Your task to perform on an android device: What's the latest video from GameSpot Reviews? Image 0: 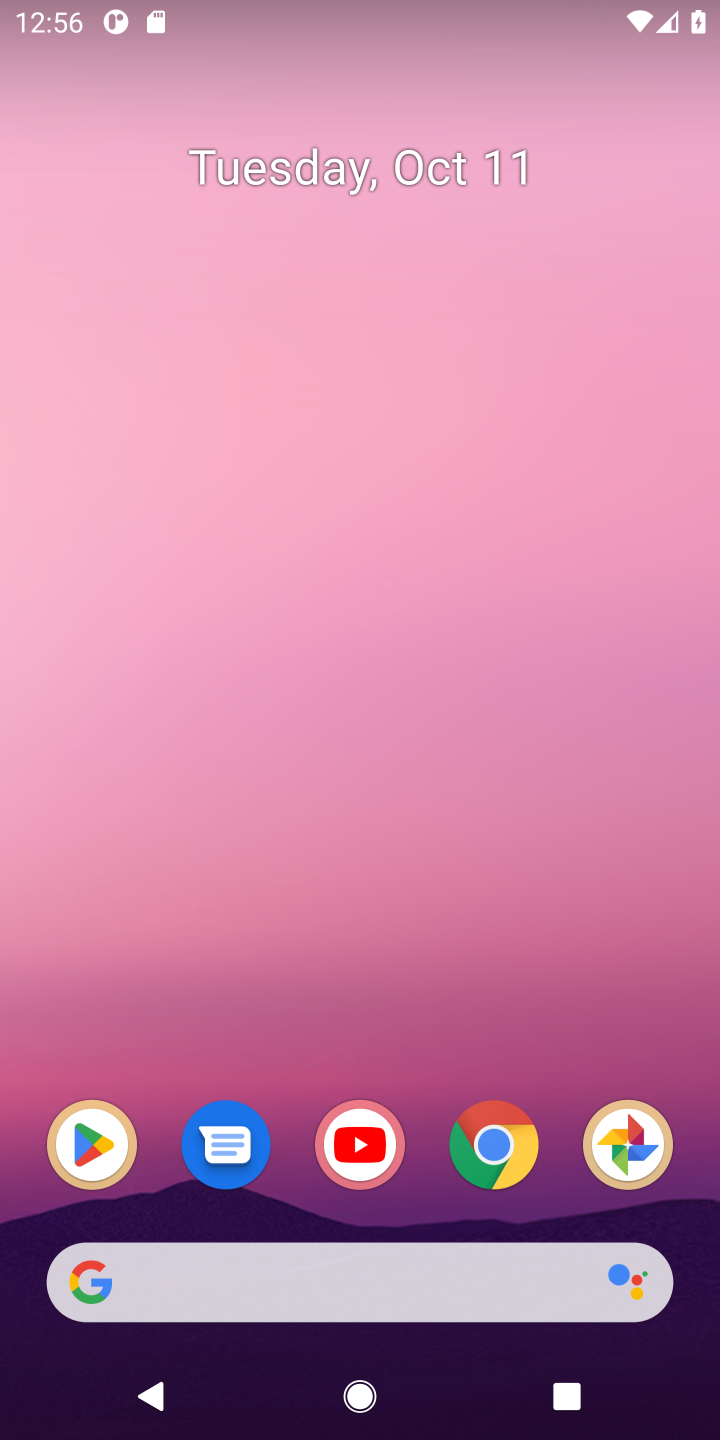
Step 0: press home button
Your task to perform on an android device: What's the latest video from GameSpot Reviews? Image 1: 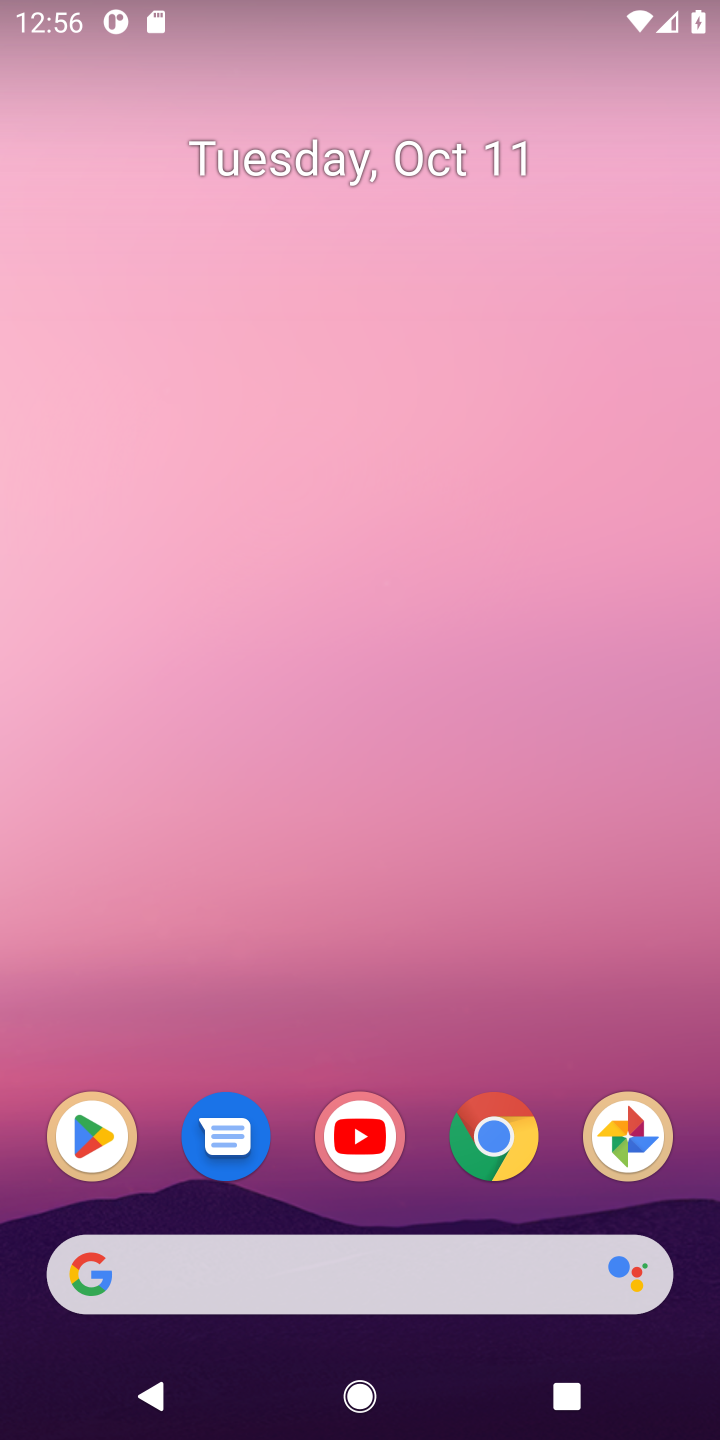
Step 1: press home button
Your task to perform on an android device: What's the latest video from GameSpot Reviews? Image 2: 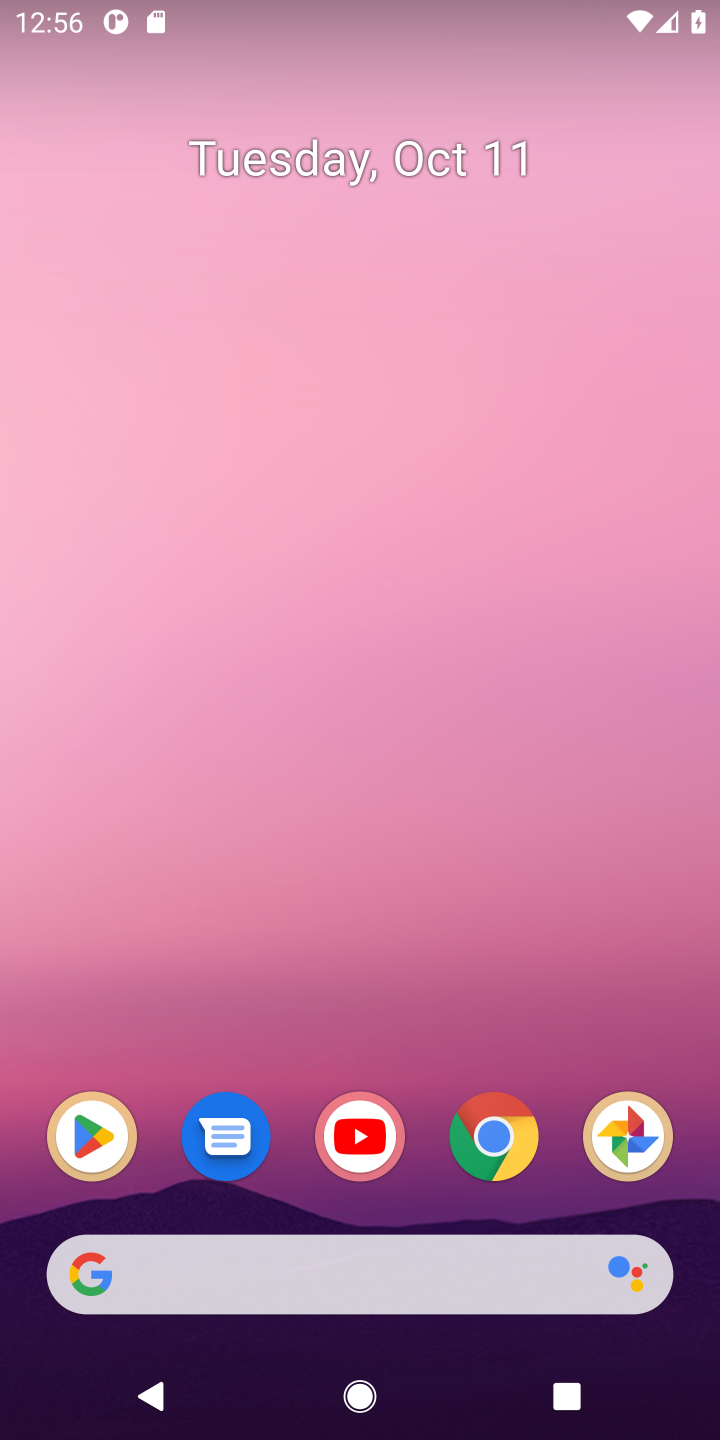
Step 2: click (307, 1270)
Your task to perform on an android device: What's the latest video from GameSpot Reviews? Image 3: 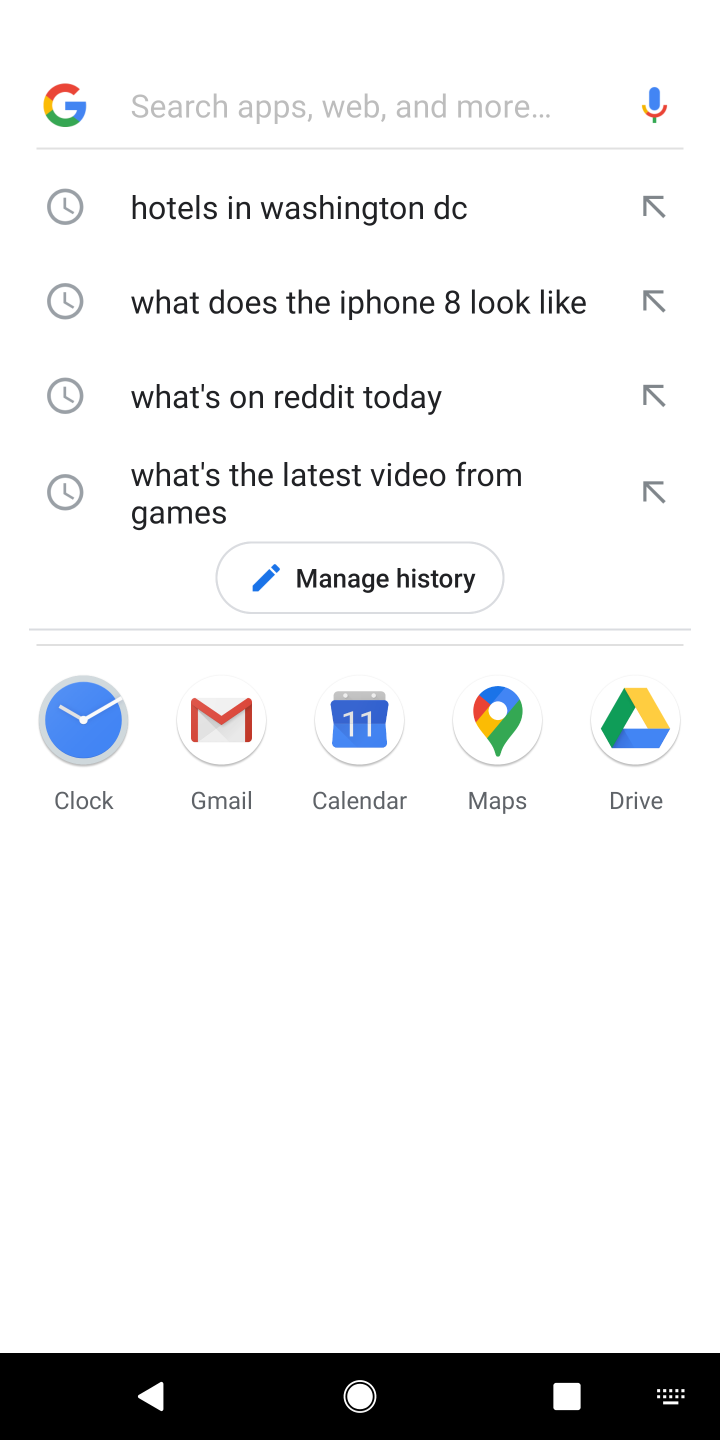
Step 3: type "What's the latest video from GameSpot Reviews"
Your task to perform on an android device: What's the latest video from GameSpot Reviews? Image 4: 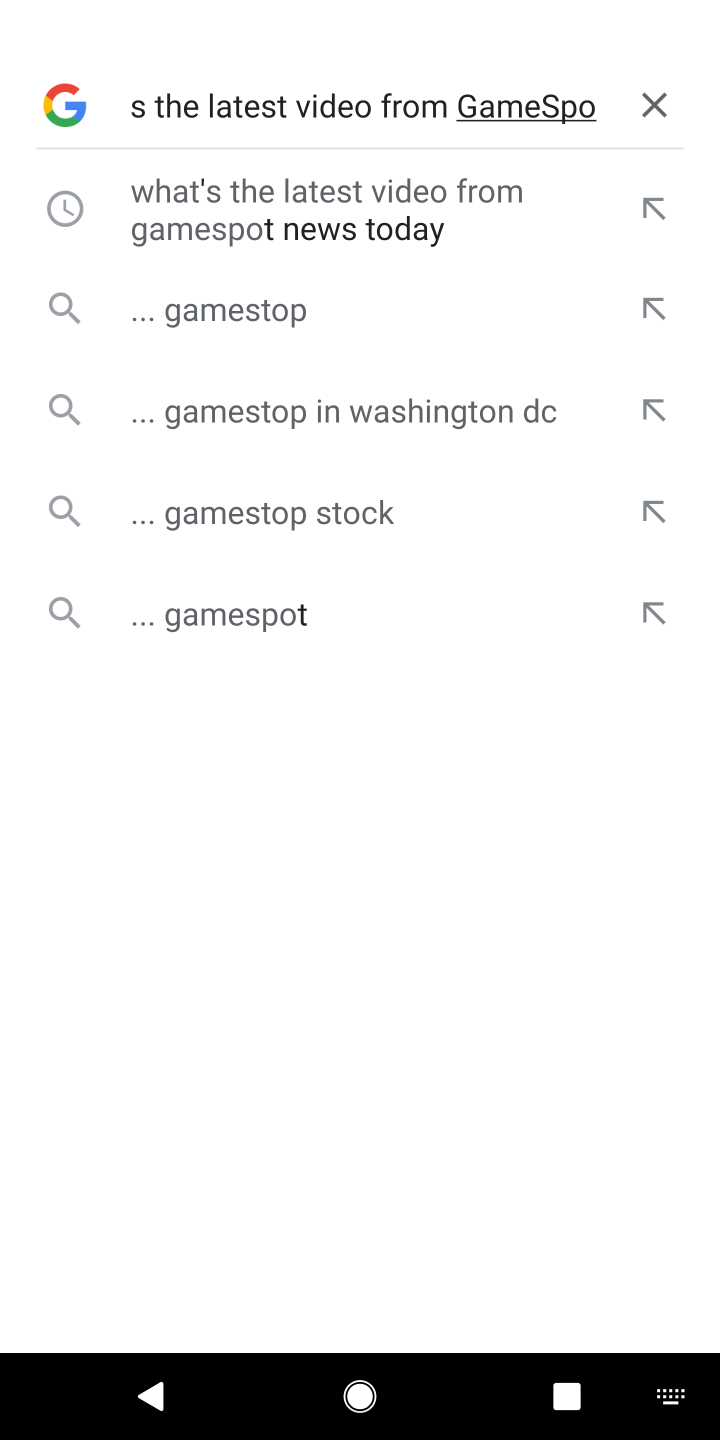
Step 4: press enter
Your task to perform on an android device: What's the latest video from GameSpot Reviews? Image 5: 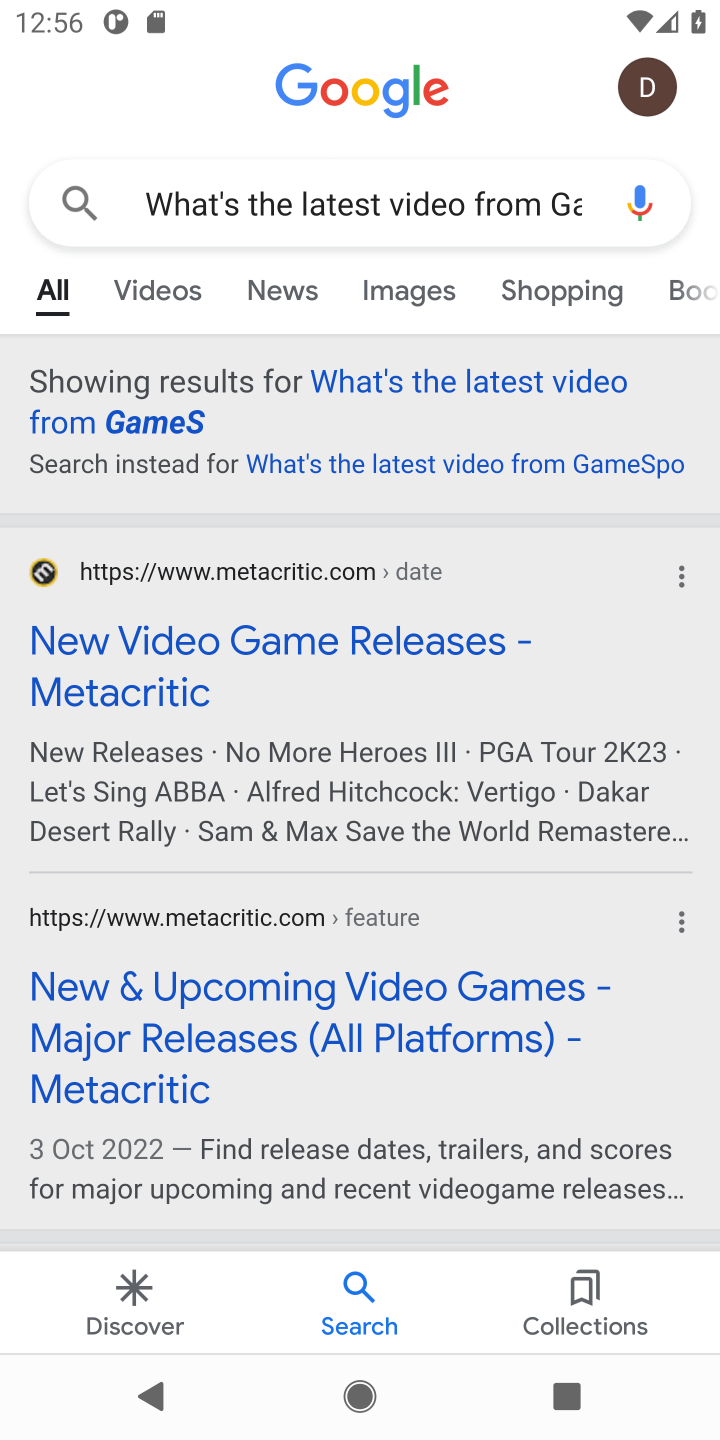
Step 5: drag from (424, 1065) to (458, 631)
Your task to perform on an android device: What's the latest video from GameSpot Reviews? Image 6: 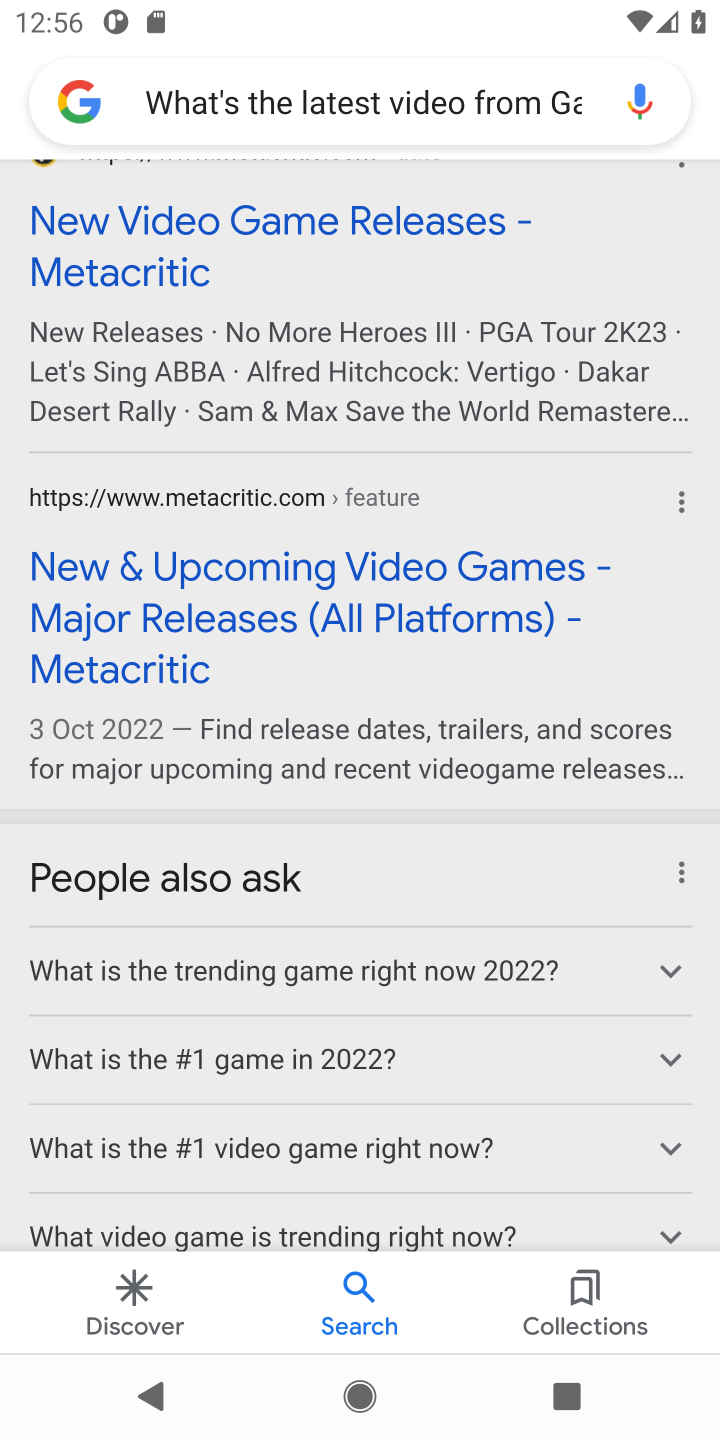
Step 6: drag from (433, 968) to (483, 494)
Your task to perform on an android device: What's the latest video from GameSpot Reviews? Image 7: 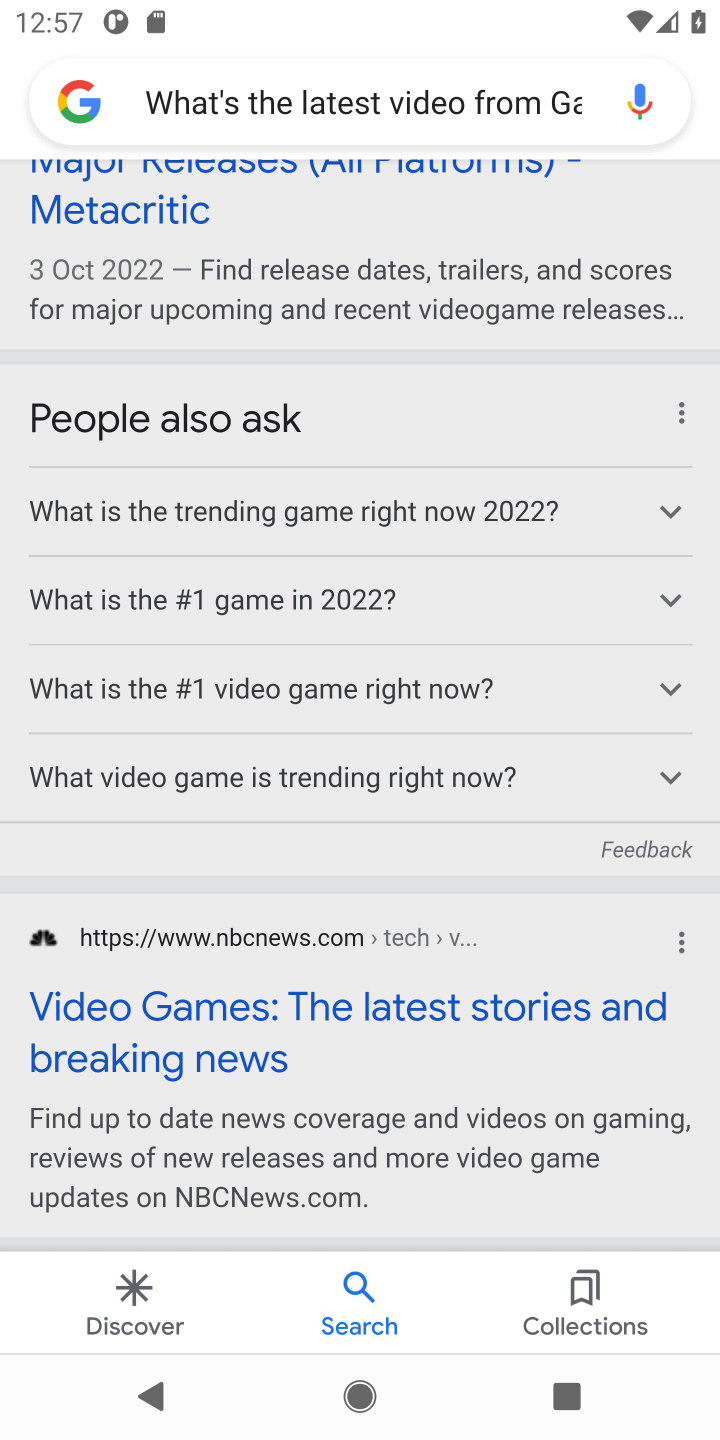
Step 7: drag from (445, 1131) to (449, 538)
Your task to perform on an android device: What's the latest video from GameSpot Reviews? Image 8: 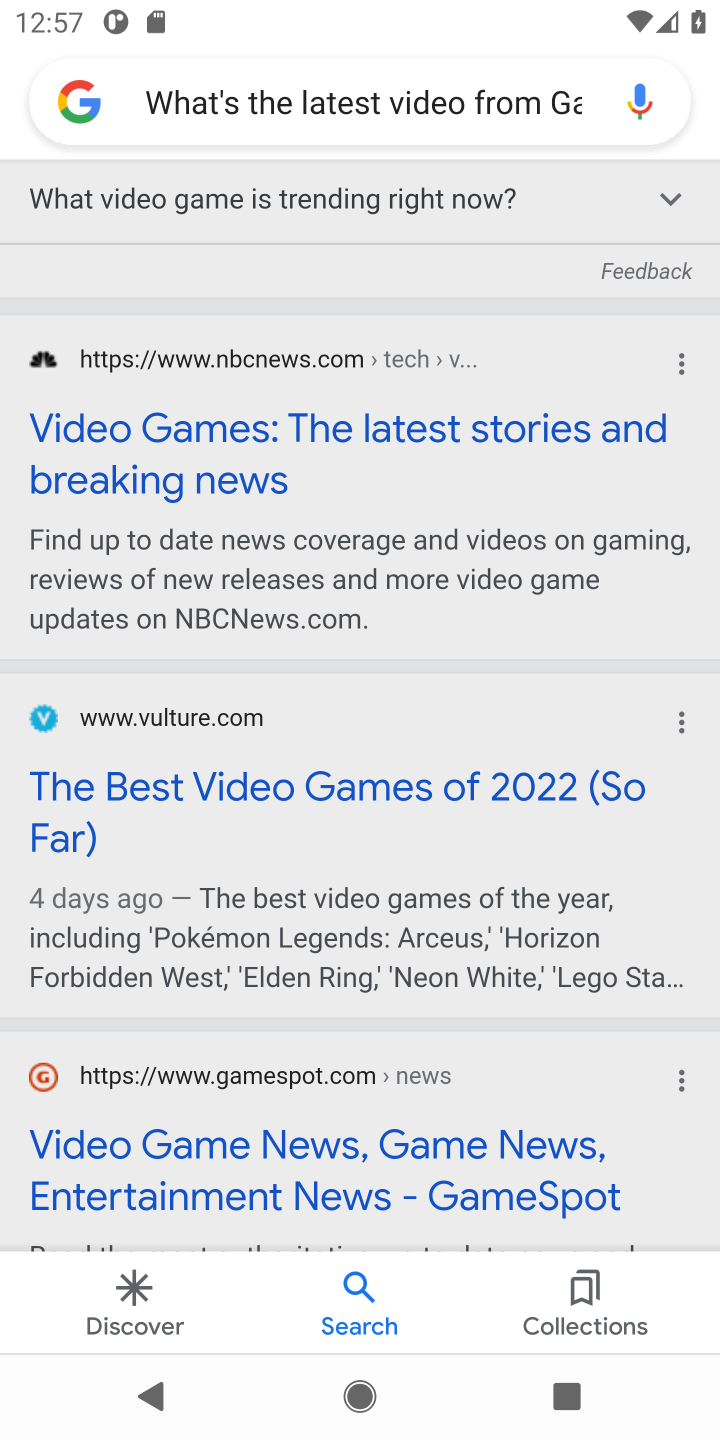
Step 8: drag from (392, 1019) to (423, 569)
Your task to perform on an android device: What's the latest video from GameSpot Reviews? Image 9: 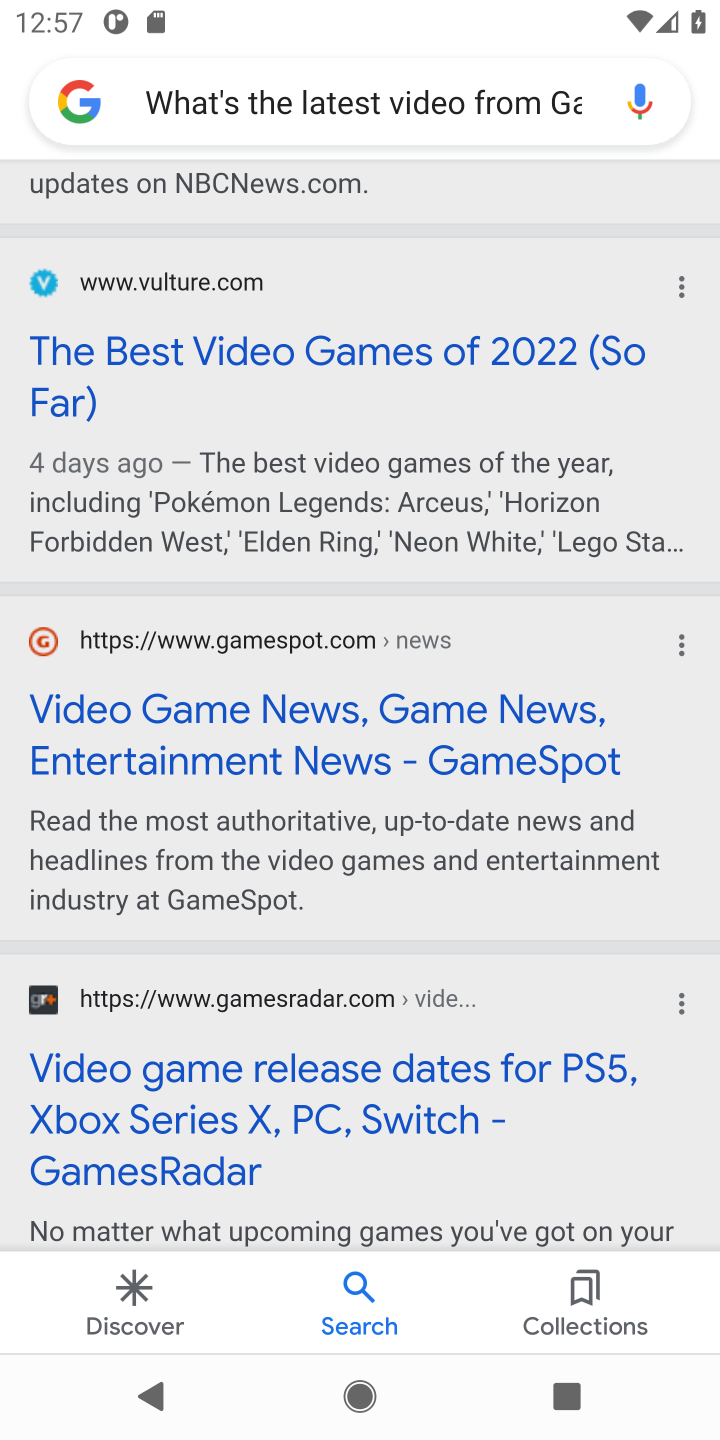
Step 9: click (448, 732)
Your task to perform on an android device: What's the latest video from GameSpot Reviews? Image 10: 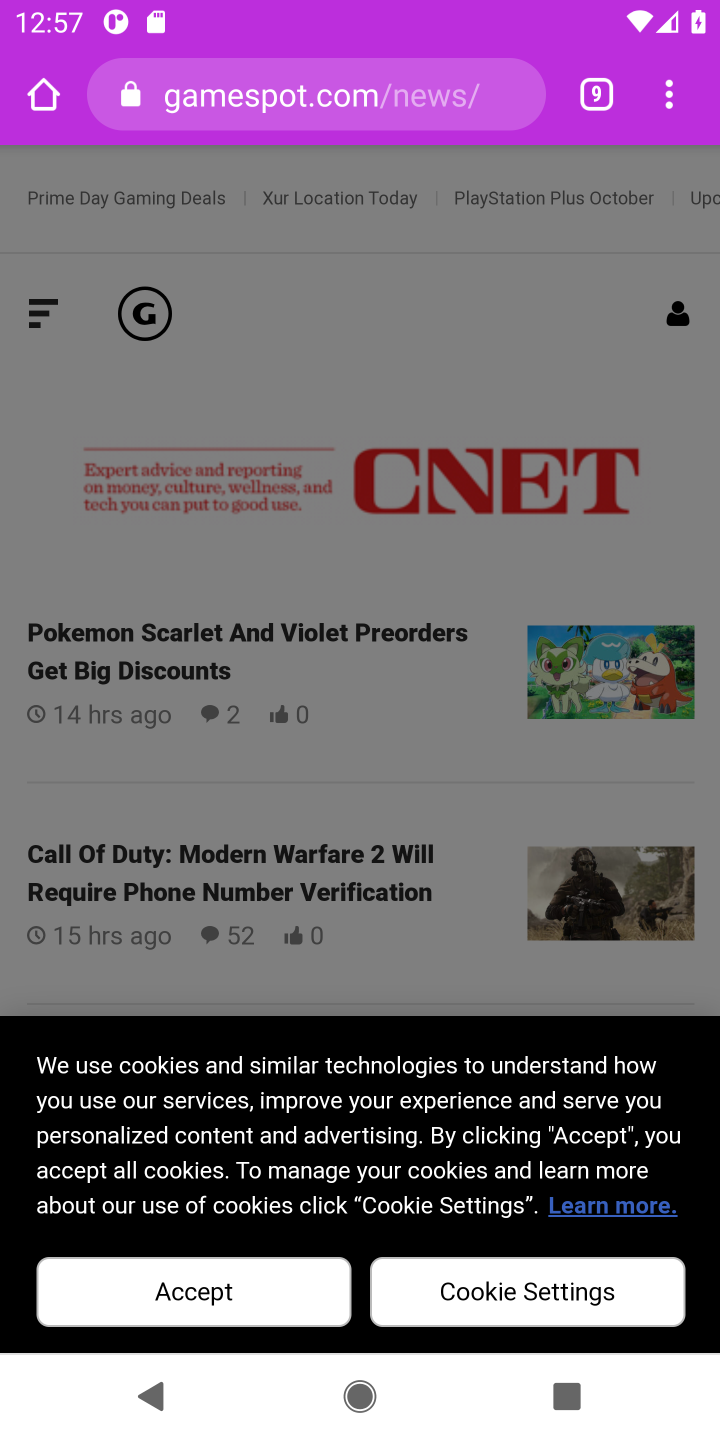
Step 10: click (213, 1300)
Your task to perform on an android device: What's the latest video from GameSpot Reviews? Image 11: 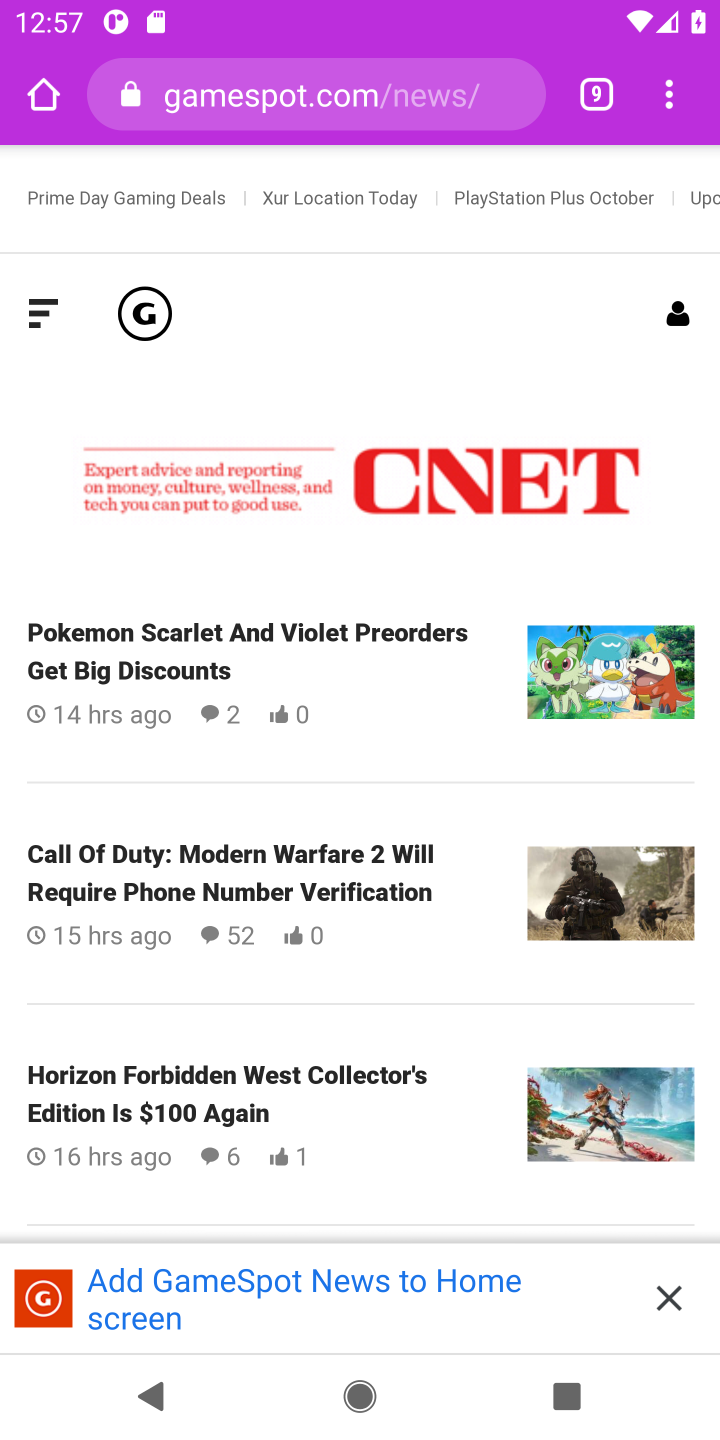
Step 11: task complete